Your task to perform on an android device: empty trash in the gmail app Image 0: 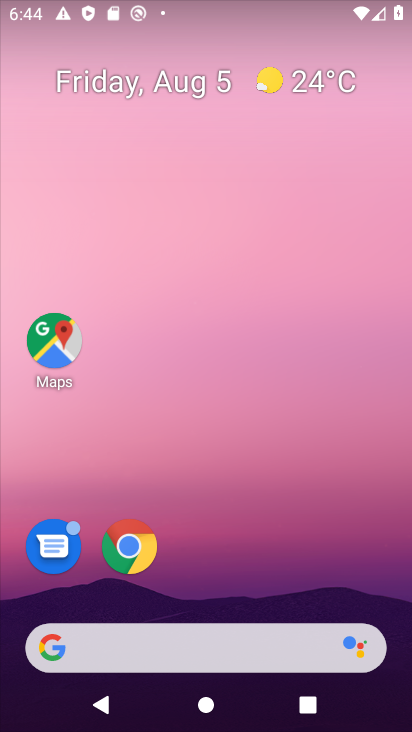
Step 0: drag from (200, 599) to (245, 230)
Your task to perform on an android device: empty trash in the gmail app Image 1: 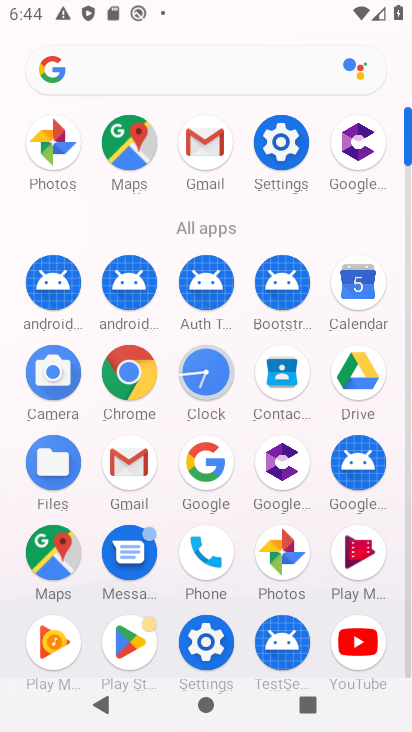
Step 1: click (133, 449)
Your task to perform on an android device: empty trash in the gmail app Image 2: 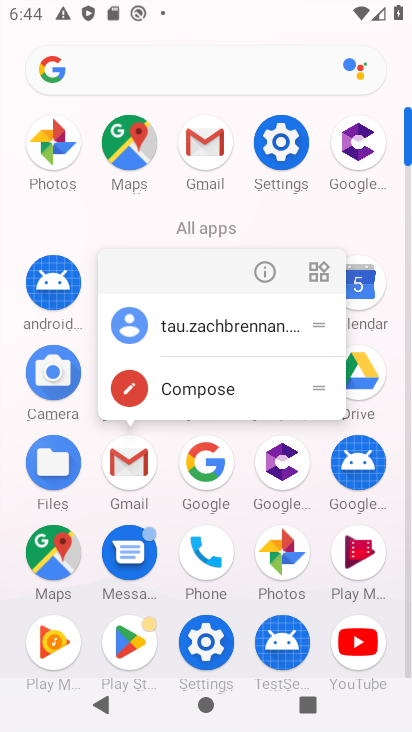
Step 2: click (260, 275)
Your task to perform on an android device: empty trash in the gmail app Image 3: 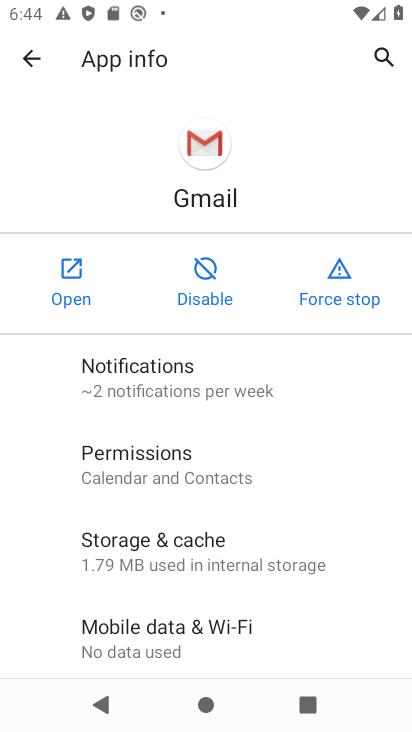
Step 3: click (82, 275)
Your task to perform on an android device: empty trash in the gmail app Image 4: 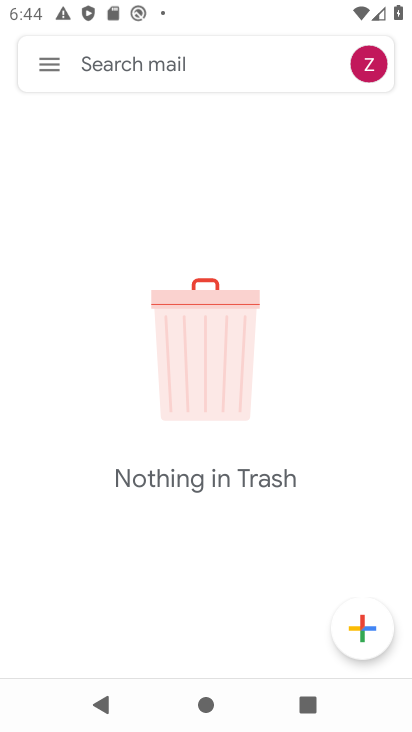
Step 4: click (42, 76)
Your task to perform on an android device: empty trash in the gmail app Image 5: 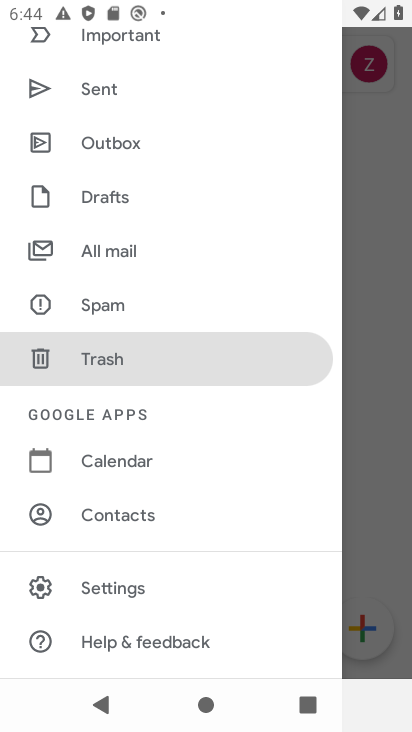
Step 5: click (100, 362)
Your task to perform on an android device: empty trash in the gmail app Image 6: 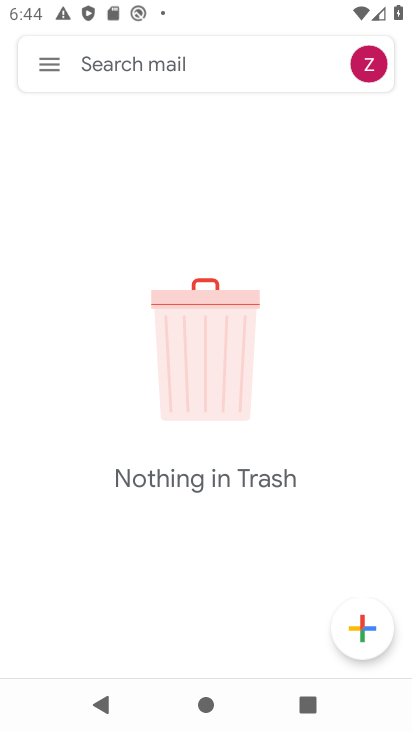
Step 6: click (366, 359)
Your task to perform on an android device: empty trash in the gmail app Image 7: 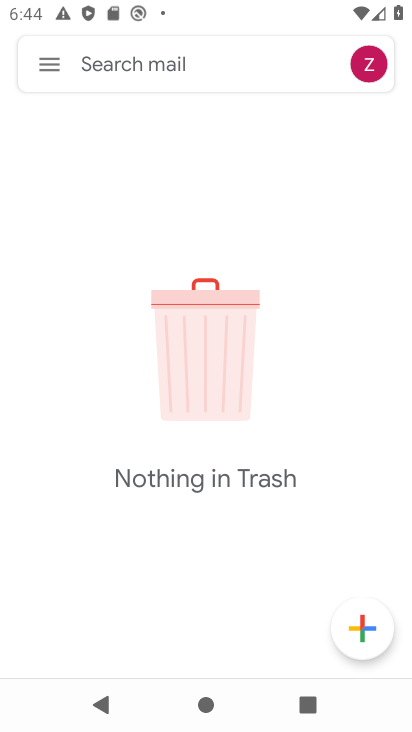
Step 7: task complete